Your task to perform on an android device: Open maps Image 0: 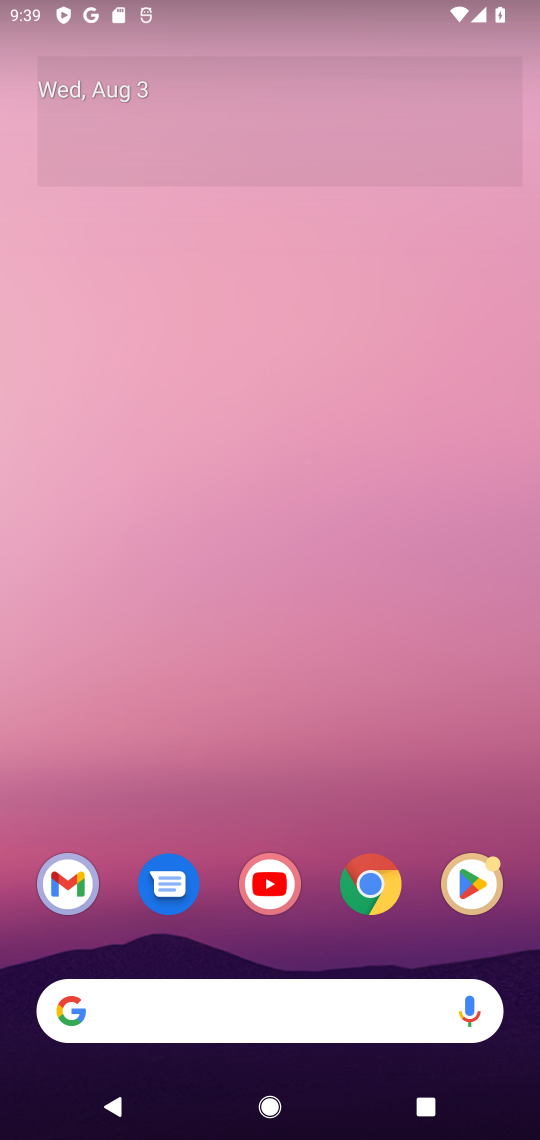
Step 0: drag from (240, 765) to (235, 189)
Your task to perform on an android device: Open maps Image 1: 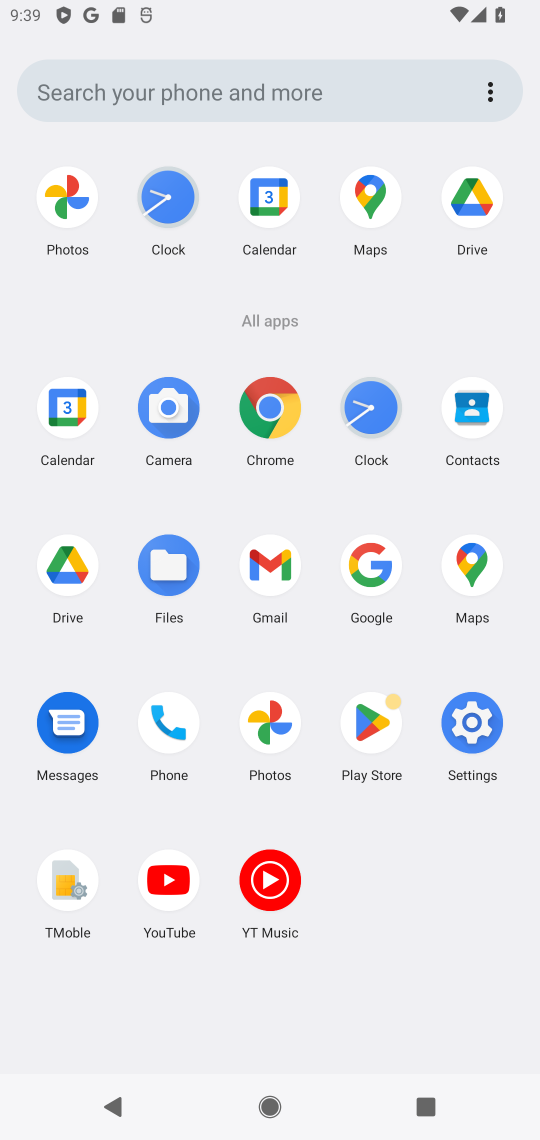
Step 1: click (372, 205)
Your task to perform on an android device: Open maps Image 2: 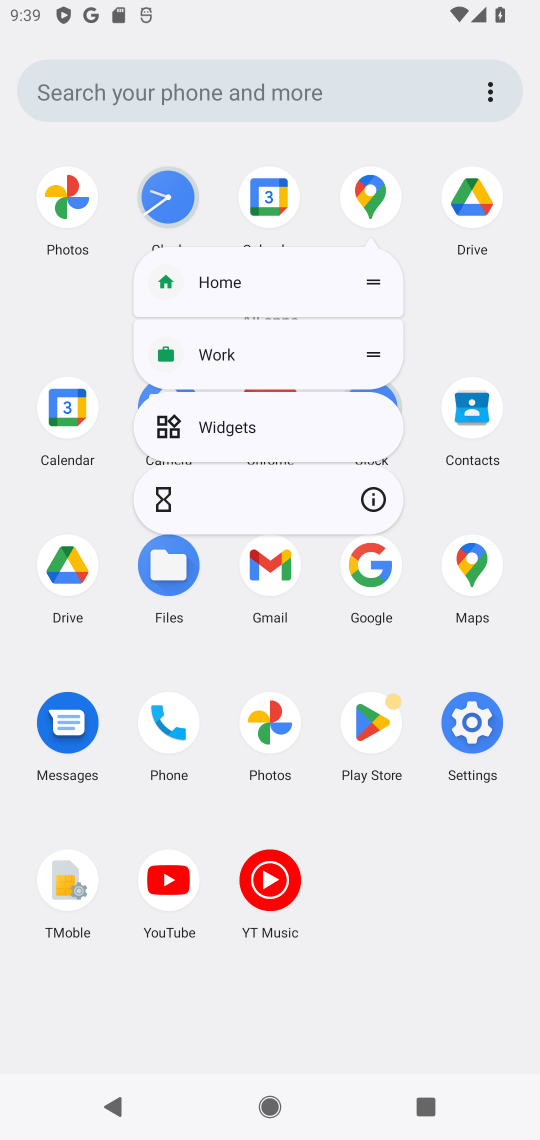
Step 2: click (372, 178)
Your task to perform on an android device: Open maps Image 3: 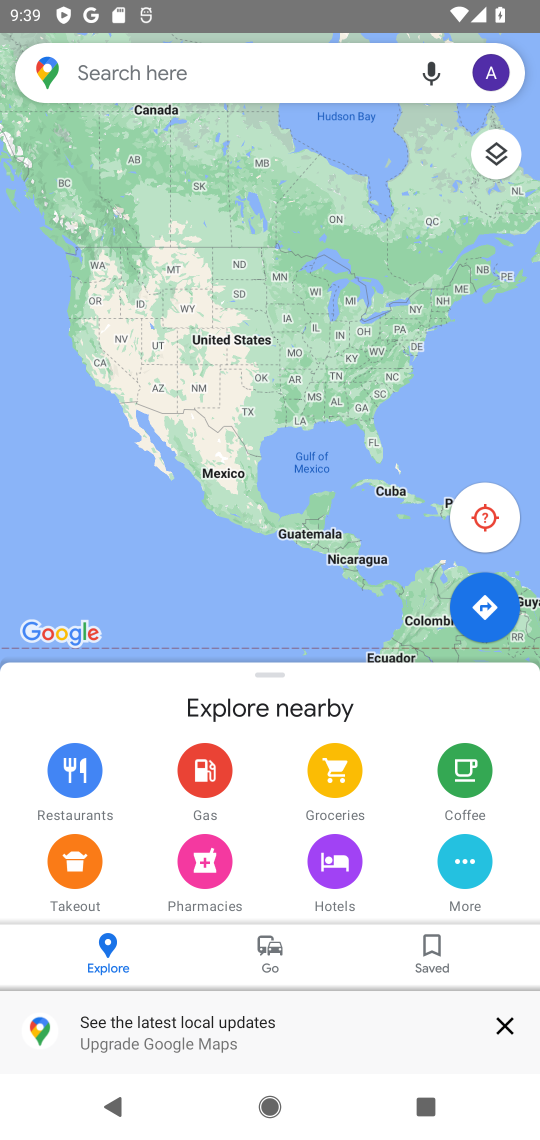
Step 3: task complete